Your task to perform on an android device: Check the weather Image 0: 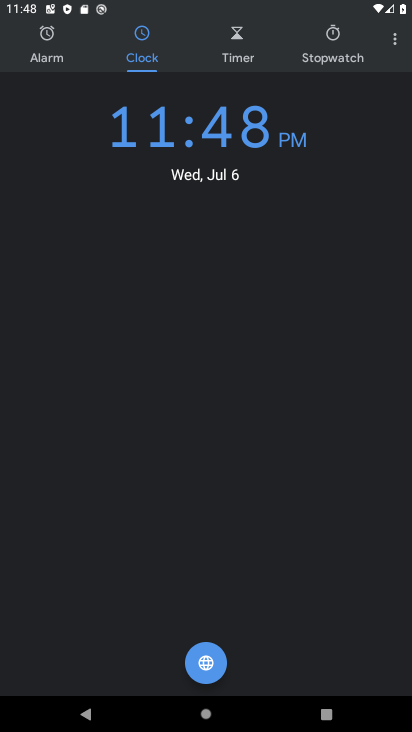
Step 0: press home button
Your task to perform on an android device: Check the weather Image 1: 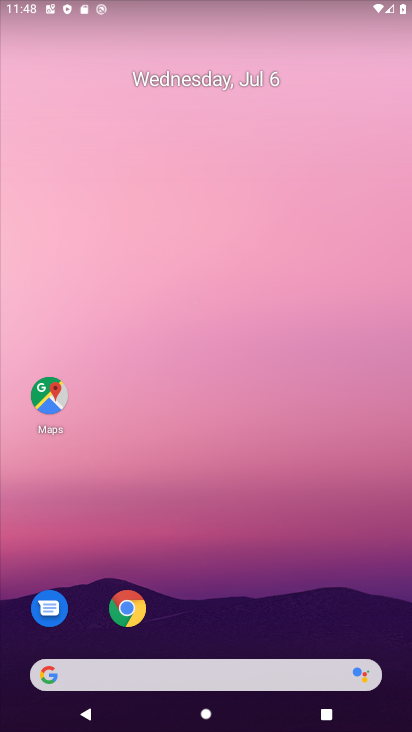
Step 1: drag from (255, 663) to (242, 176)
Your task to perform on an android device: Check the weather Image 2: 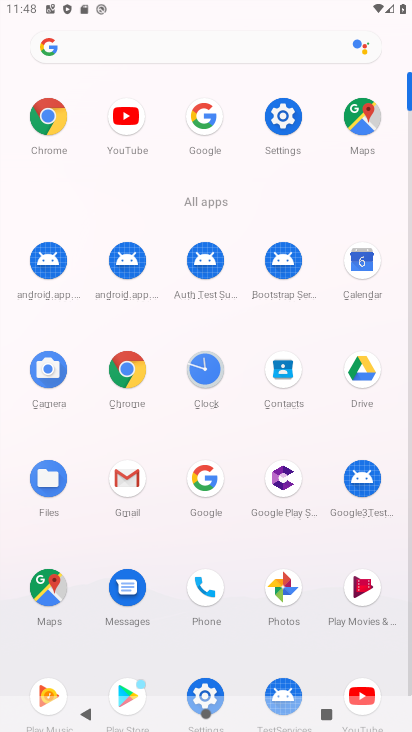
Step 2: click (198, 112)
Your task to perform on an android device: Check the weather Image 3: 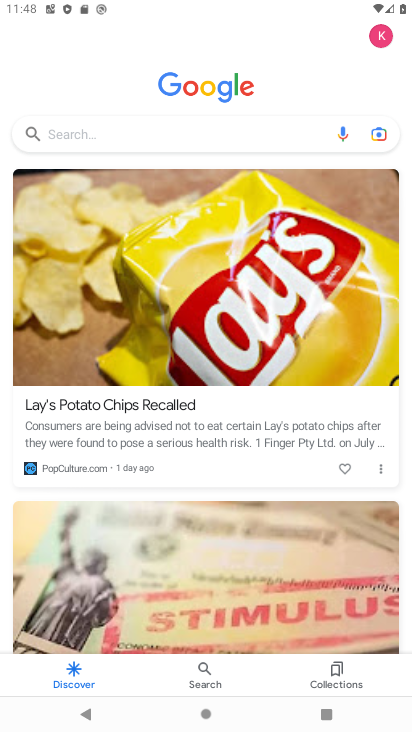
Step 3: click (99, 130)
Your task to perform on an android device: Check the weather Image 4: 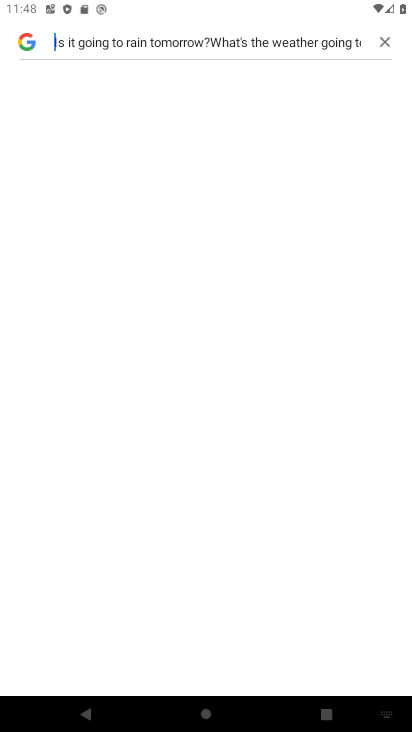
Step 4: click (251, 40)
Your task to perform on an android device: Check the weather Image 5: 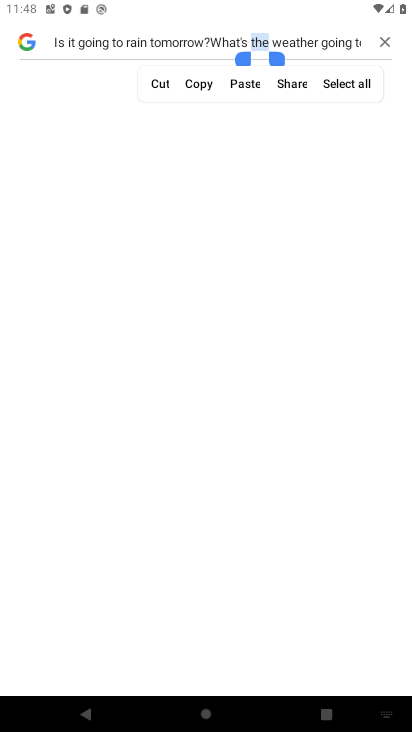
Step 5: click (382, 41)
Your task to perform on an android device: Check the weather Image 6: 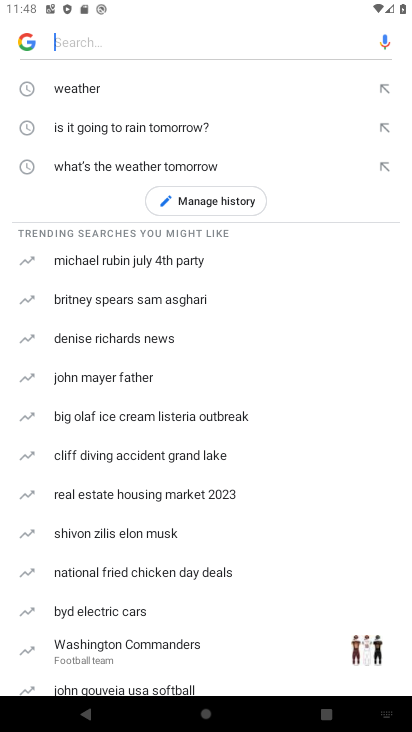
Step 6: click (61, 98)
Your task to perform on an android device: Check the weather Image 7: 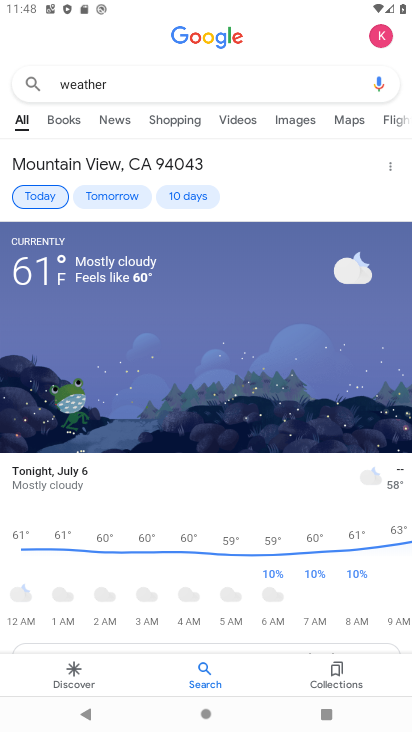
Step 7: task complete